Your task to perform on an android device: What's the weather? Image 0: 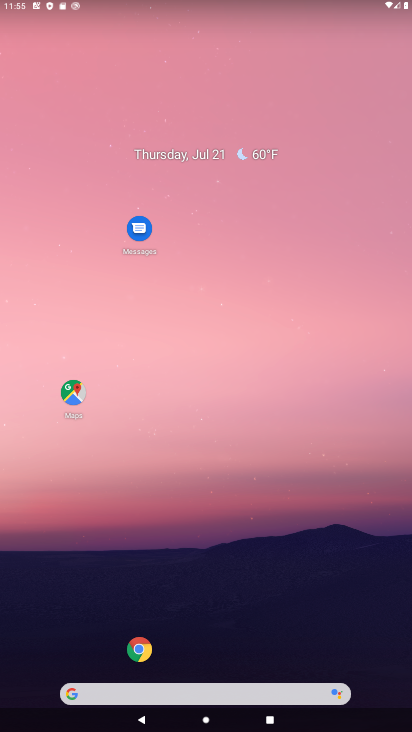
Step 0: click (106, 688)
Your task to perform on an android device: What's the weather? Image 1: 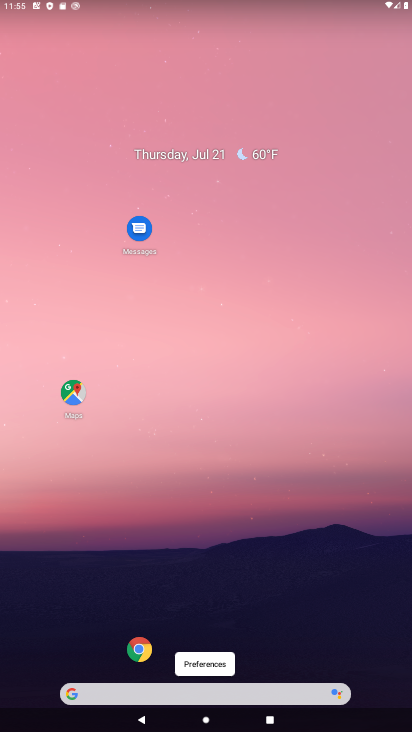
Step 1: click (111, 698)
Your task to perform on an android device: What's the weather? Image 2: 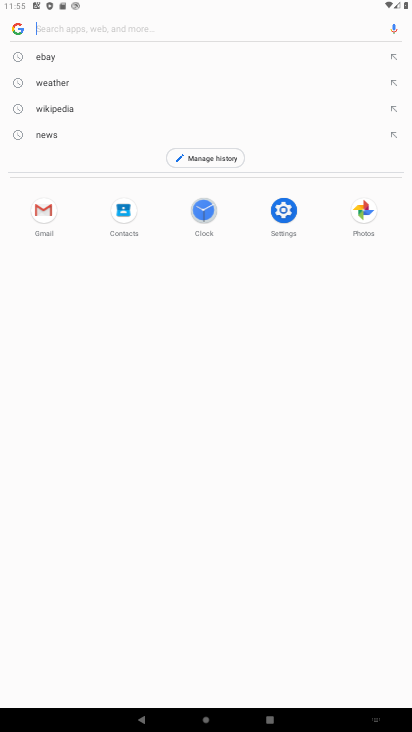
Step 2: type "What's the weather?"
Your task to perform on an android device: What's the weather? Image 3: 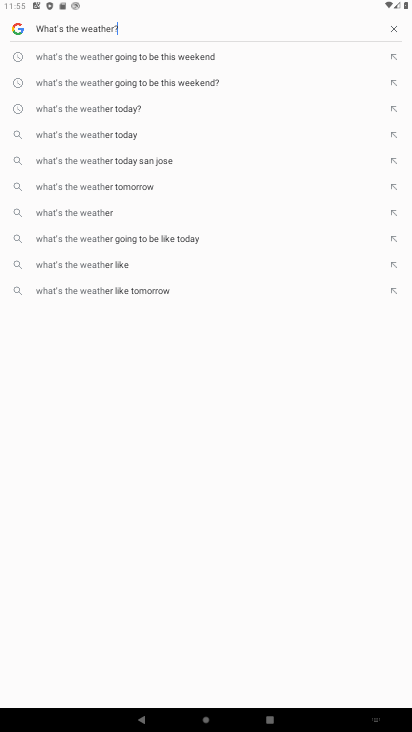
Step 3: type ""
Your task to perform on an android device: What's the weather? Image 4: 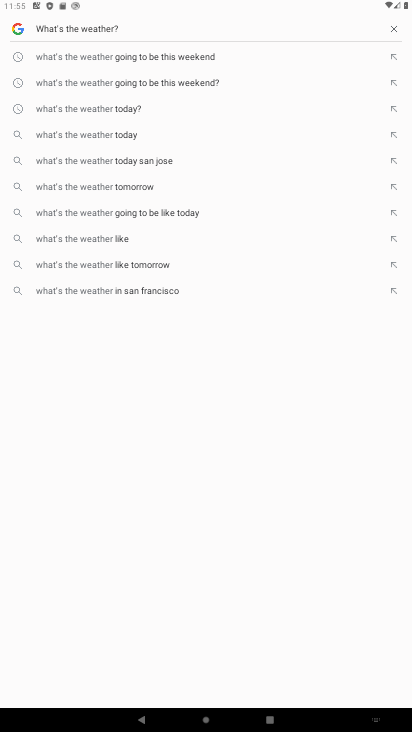
Step 4: type ""
Your task to perform on an android device: What's the weather? Image 5: 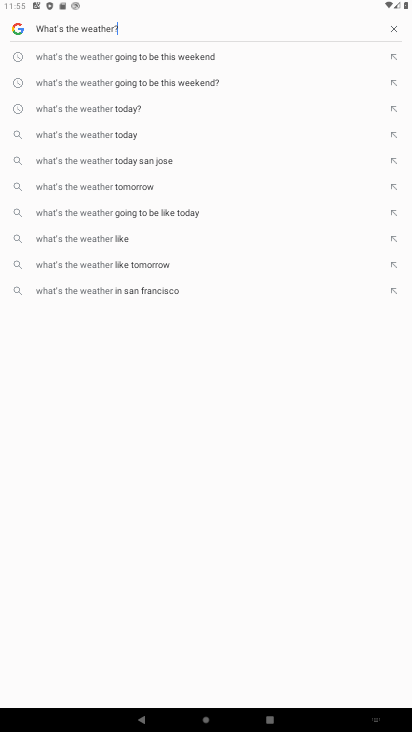
Step 5: type ""
Your task to perform on an android device: What's the weather? Image 6: 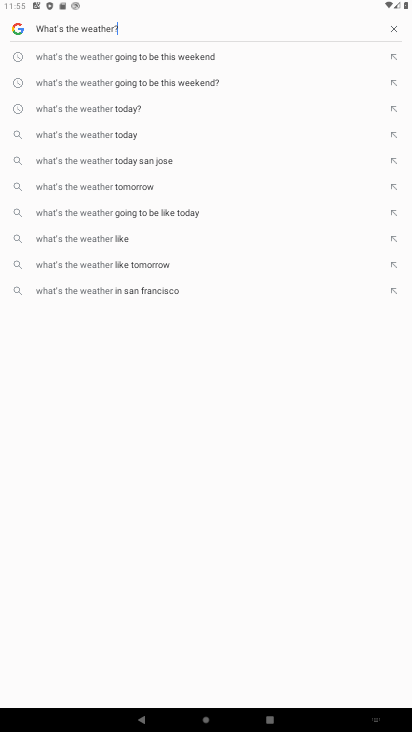
Step 6: task complete